Your task to perform on an android device: change the clock display to analog Image 0: 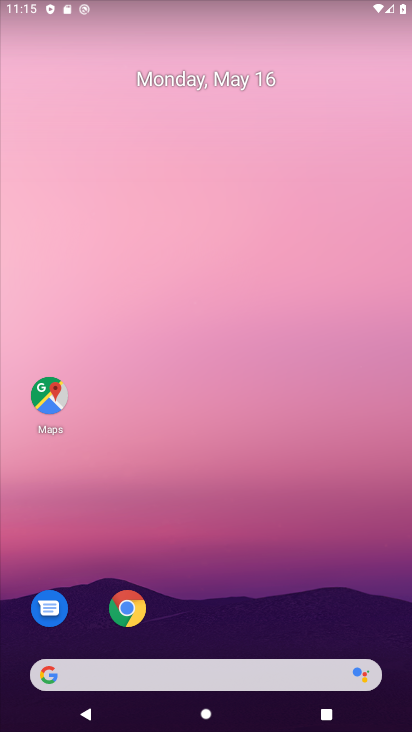
Step 0: drag from (290, 561) to (164, 49)
Your task to perform on an android device: change the clock display to analog Image 1: 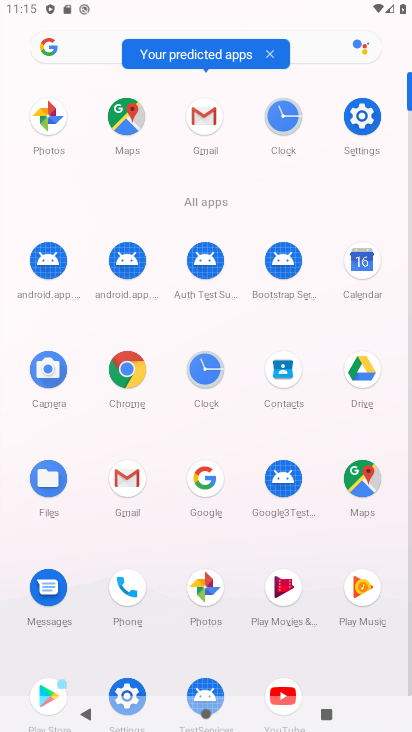
Step 1: click (284, 107)
Your task to perform on an android device: change the clock display to analog Image 2: 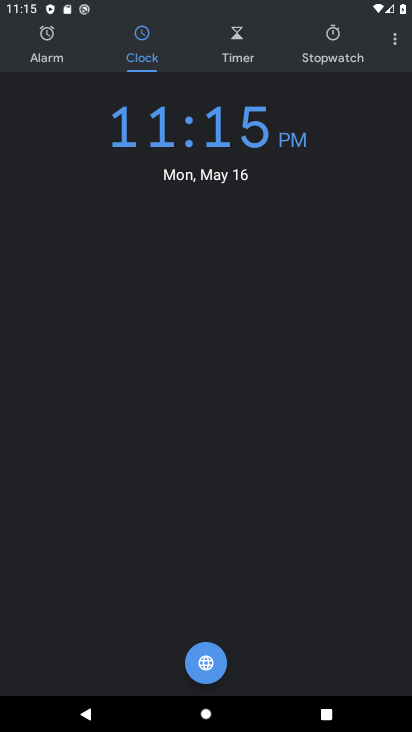
Step 2: click (397, 41)
Your task to perform on an android device: change the clock display to analog Image 3: 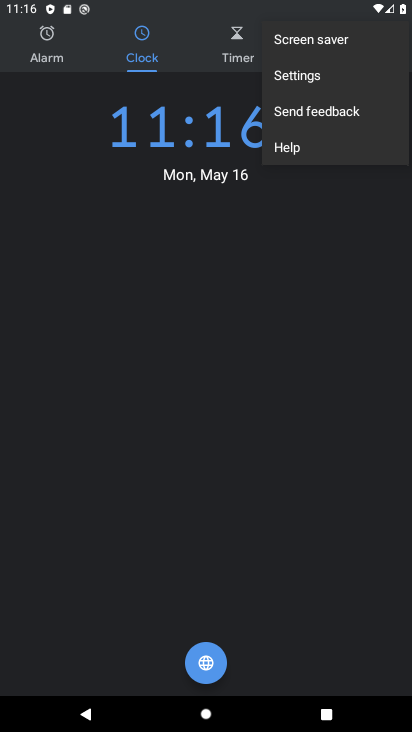
Step 3: click (303, 70)
Your task to perform on an android device: change the clock display to analog Image 4: 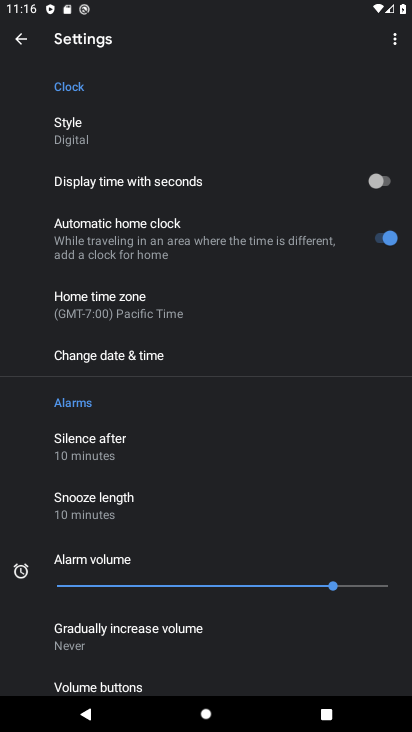
Step 4: click (94, 140)
Your task to perform on an android device: change the clock display to analog Image 5: 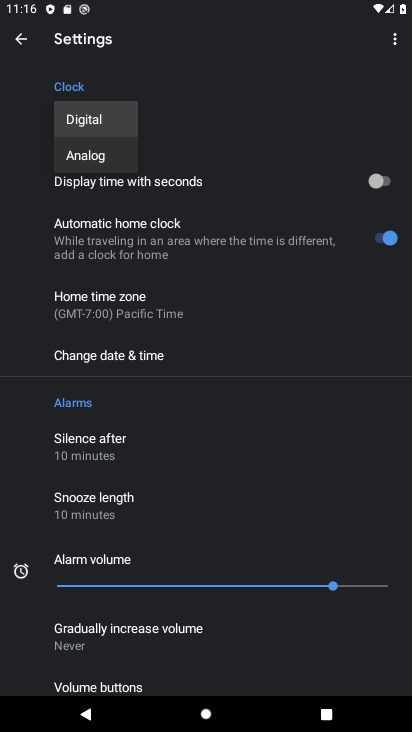
Step 5: click (97, 159)
Your task to perform on an android device: change the clock display to analog Image 6: 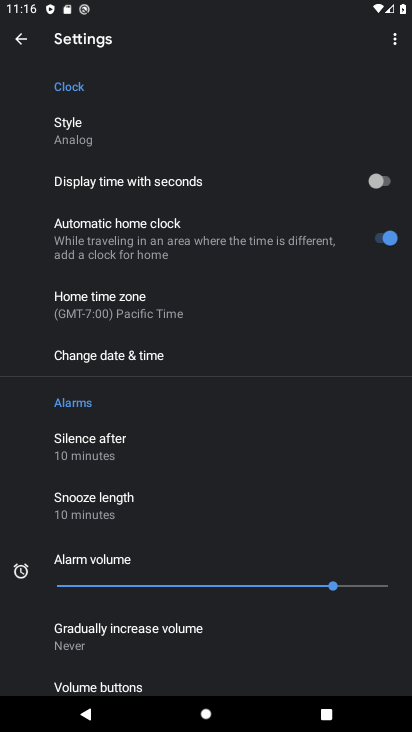
Step 6: task complete